Your task to perform on an android device: Go to location settings Image 0: 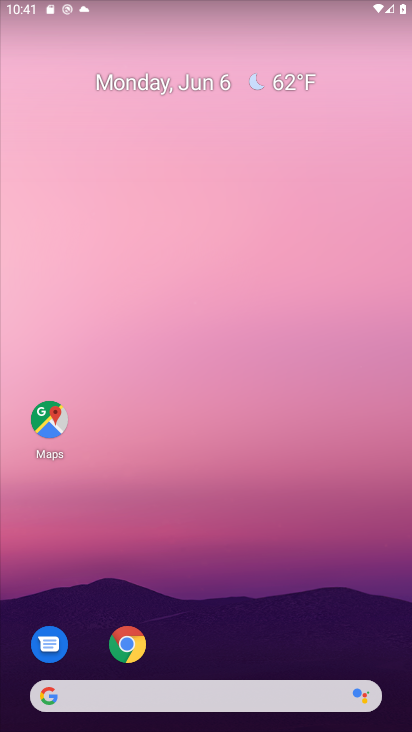
Step 0: drag from (252, 685) to (252, 292)
Your task to perform on an android device: Go to location settings Image 1: 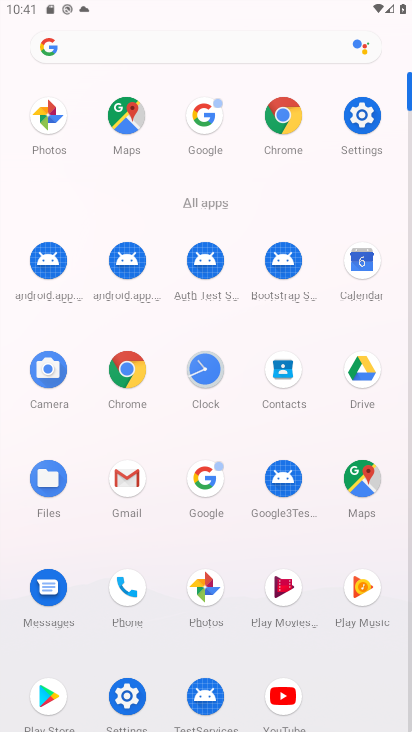
Step 1: click (355, 123)
Your task to perform on an android device: Go to location settings Image 2: 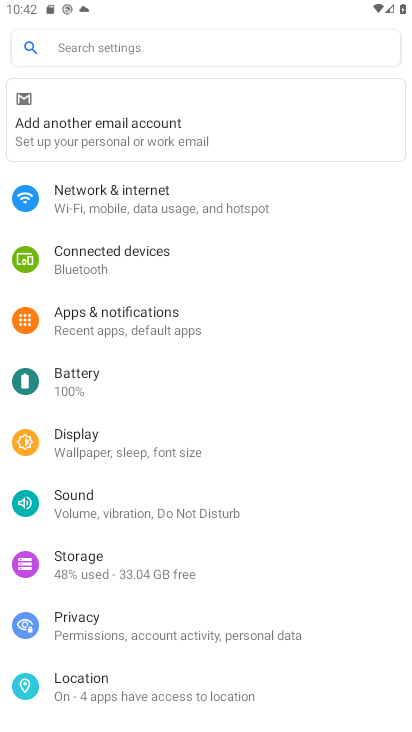
Step 2: click (127, 698)
Your task to perform on an android device: Go to location settings Image 3: 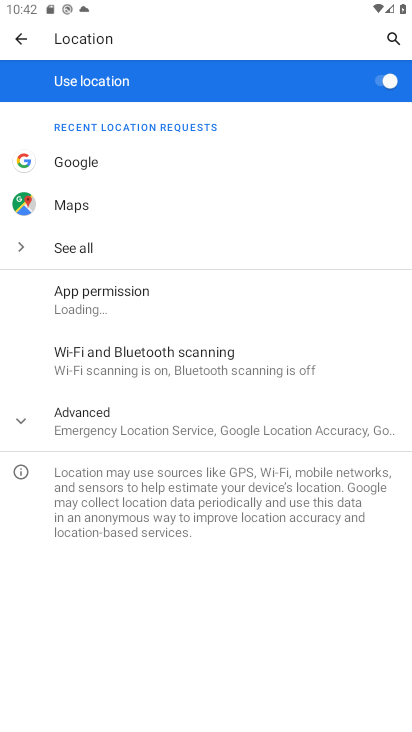
Step 3: click (91, 413)
Your task to perform on an android device: Go to location settings Image 4: 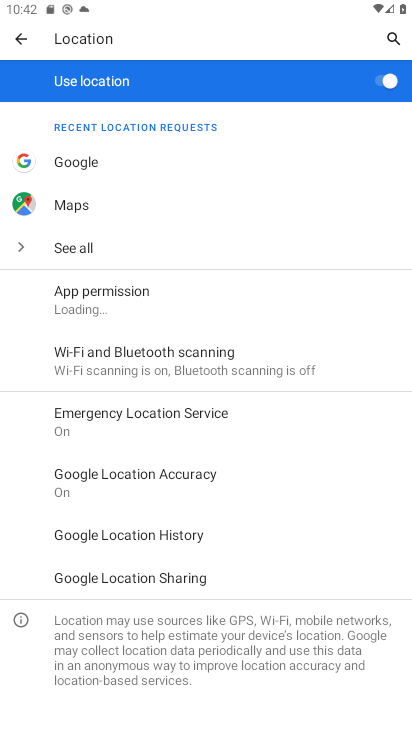
Step 4: task complete